Your task to perform on an android device: Open the calendar and show me this week's events? Image 0: 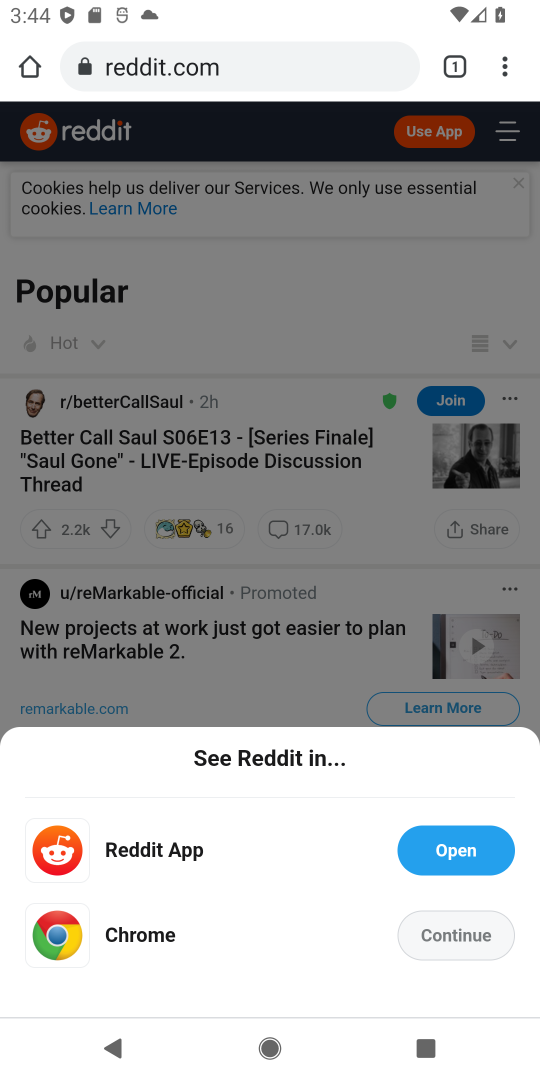
Step 0: press home button
Your task to perform on an android device: Open the calendar and show me this week's events? Image 1: 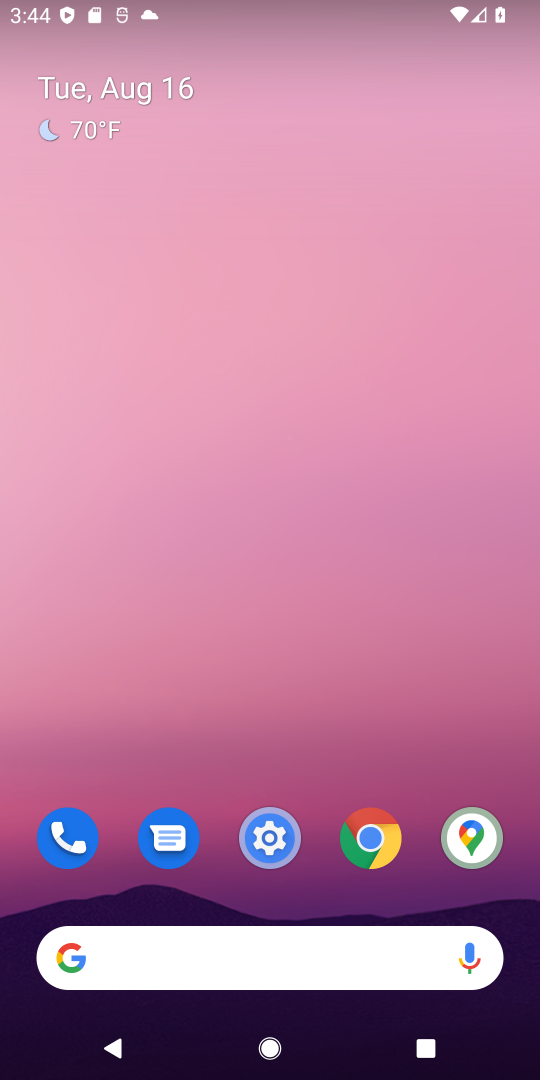
Step 1: drag from (294, 936) to (63, 12)
Your task to perform on an android device: Open the calendar and show me this week's events? Image 2: 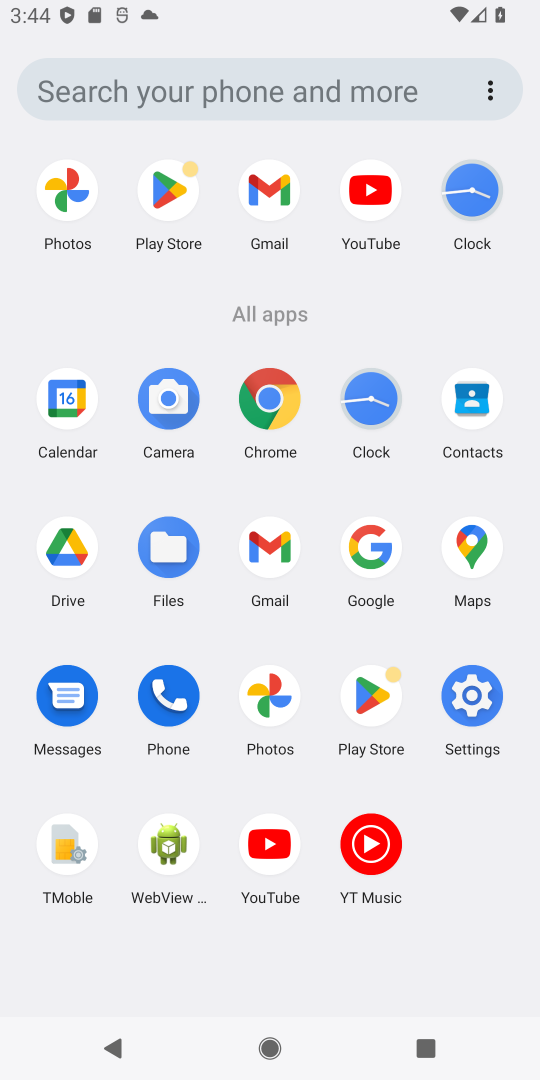
Step 2: click (68, 381)
Your task to perform on an android device: Open the calendar and show me this week's events? Image 3: 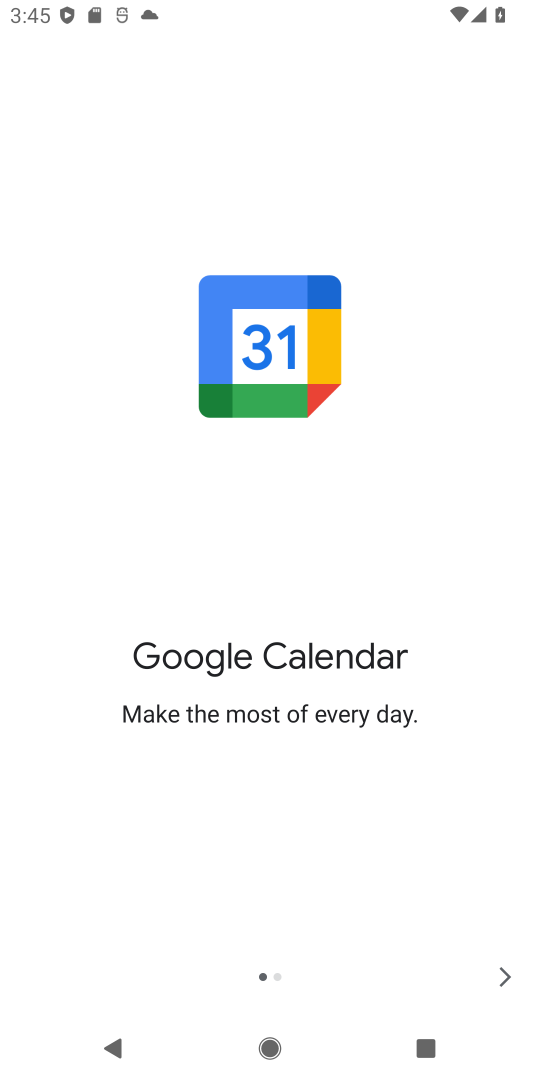
Step 3: click (508, 978)
Your task to perform on an android device: Open the calendar and show me this week's events? Image 4: 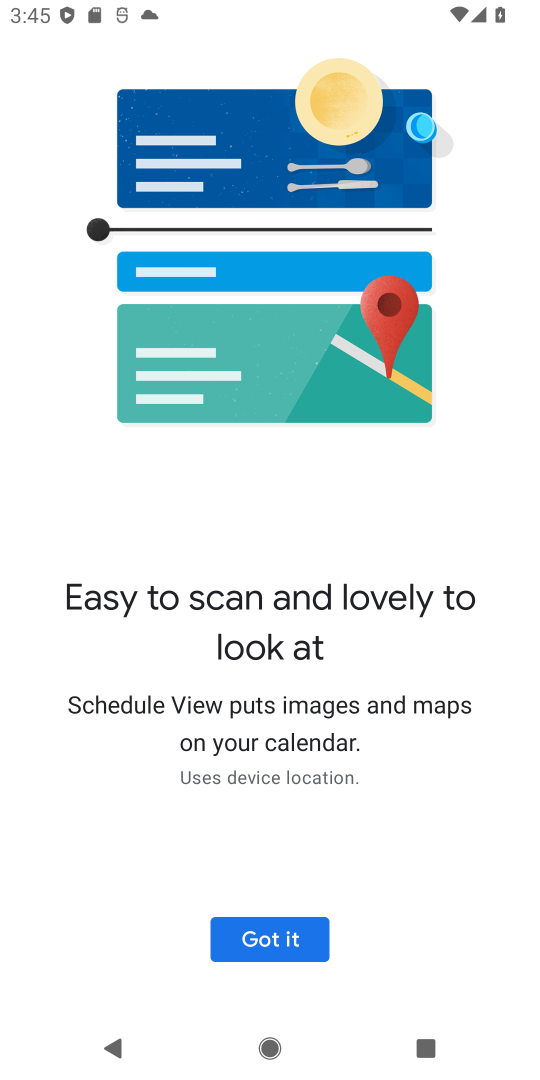
Step 4: click (320, 946)
Your task to perform on an android device: Open the calendar and show me this week's events? Image 5: 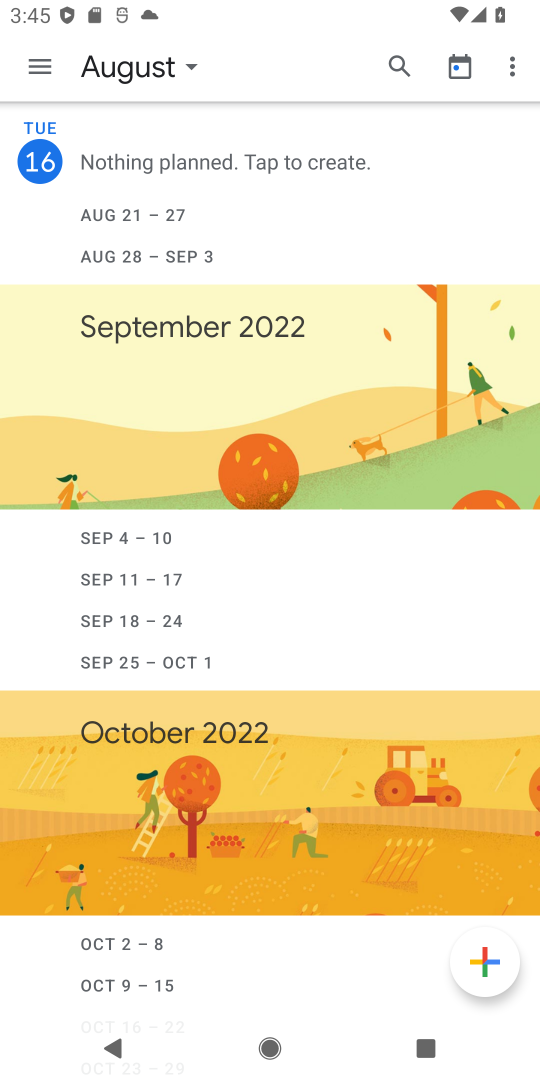
Step 5: click (51, 64)
Your task to perform on an android device: Open the calendar and show me this week's events? Image 6: 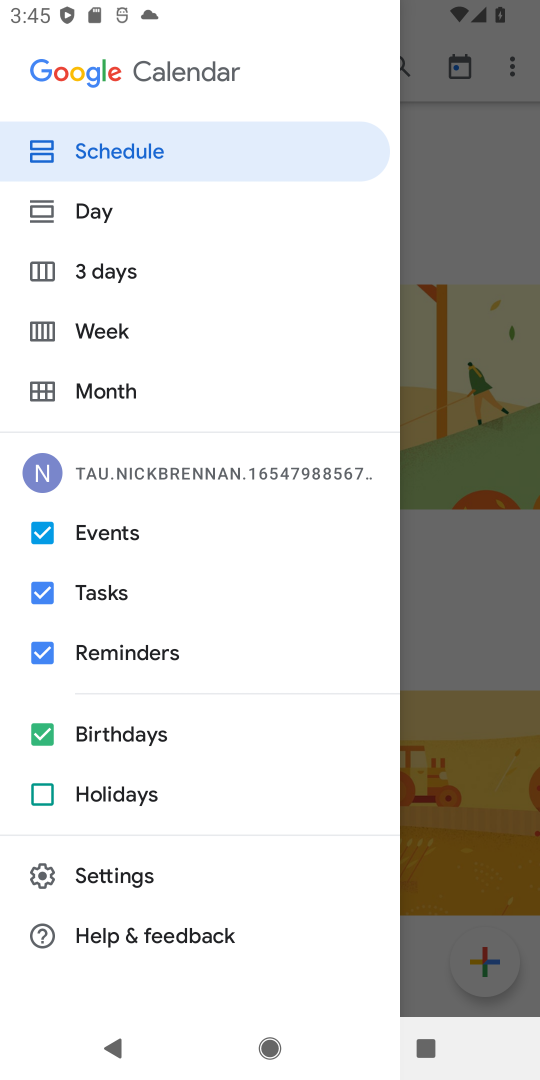
Step 6: click (128, 336)
Your task to perform on an android device: Open the calendar and show me this week's events? Image 7: 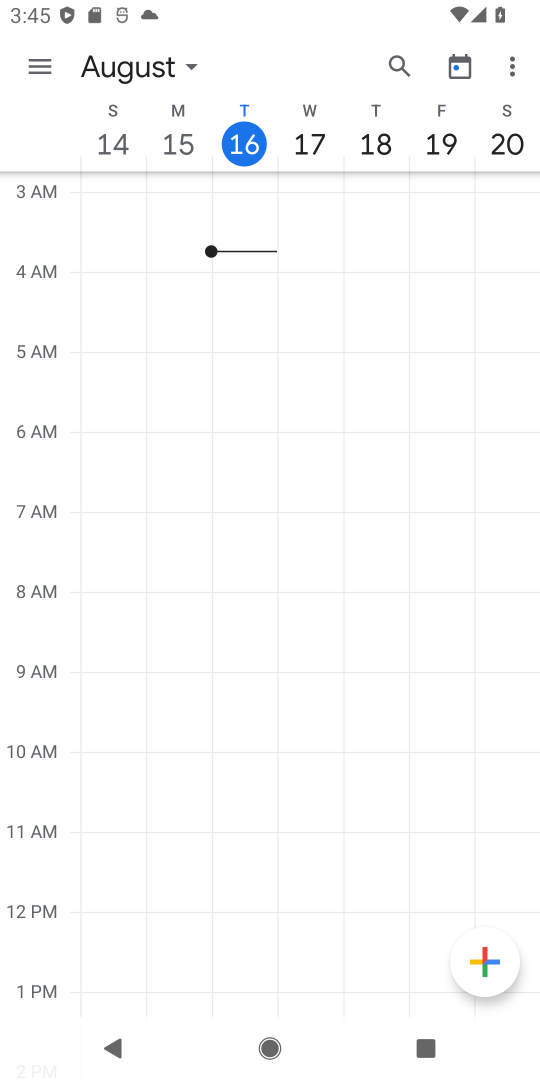
Step 7: task complete